Your task to perform on an android device: Check the news Image 0: 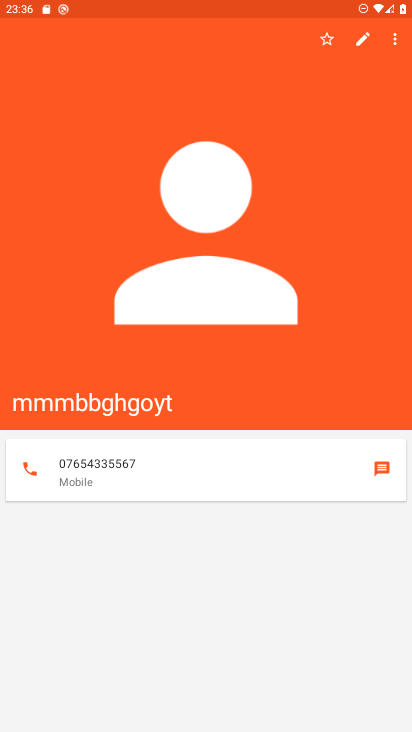
Step 0: press home button
Your task to perform on an android device: Check the news Image 1: 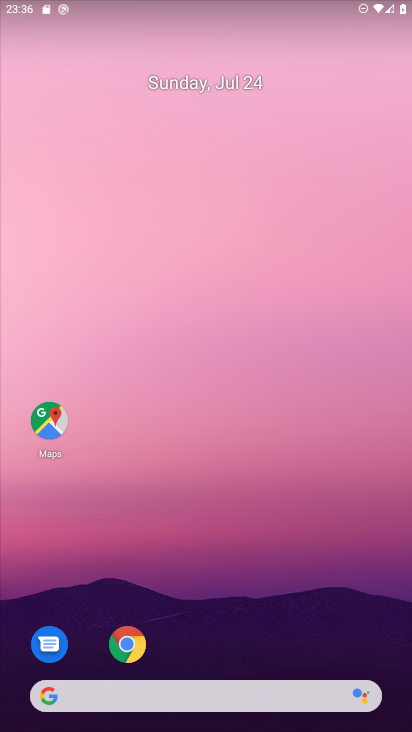
Step 1: task complete